Your task to perform on an android device: make emails show in primary in the gmail app Image 0: 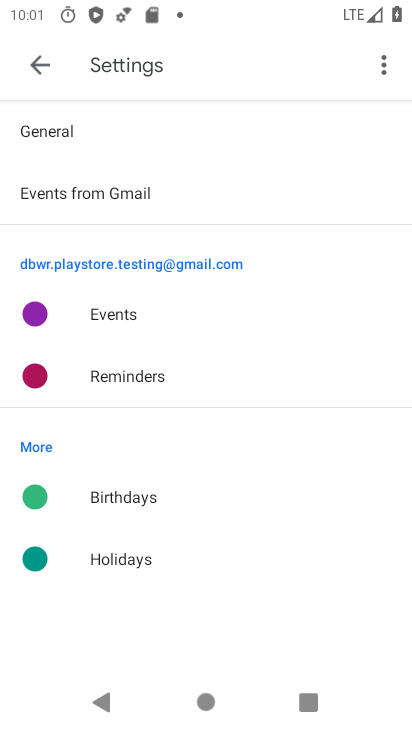
Step 0: press home button
Your task to perform on an android device: make emails show in primary in the gmail app Image 1: 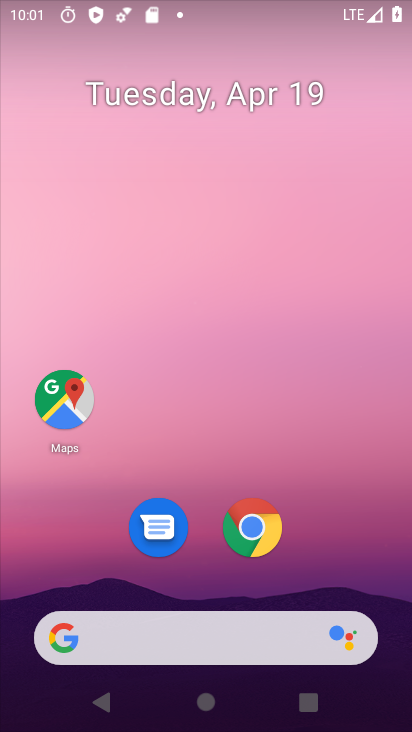
Step 1: drag from (230, 498) to (210, 259)
Your task to perform on an android device: make emails show in primary in the gmail app Image 2: 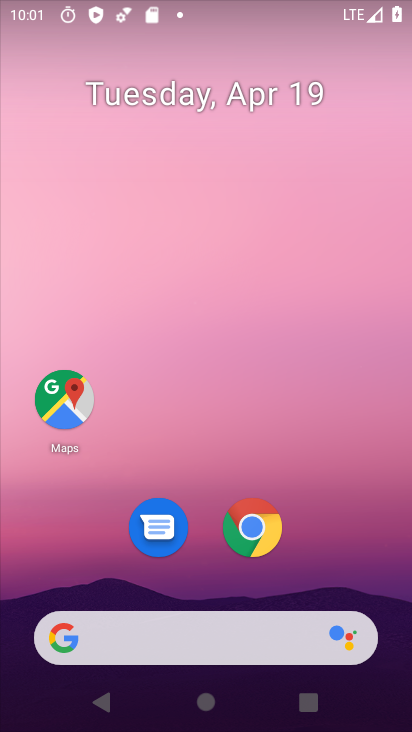
Step 2: drag from (243, 586) to (169, 128)
Your task to perform on an android device: make emails show in primary in the gmail app Image 3: 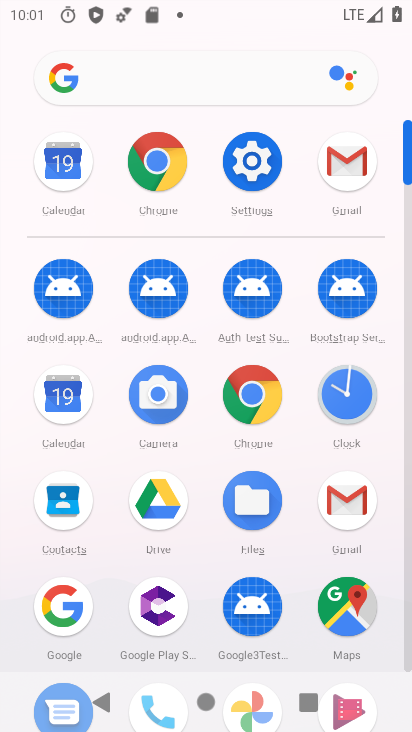
Step 3: click (326, 501)
Your task to perform on an android device: make emails show in primary in the gmail app Image 4: 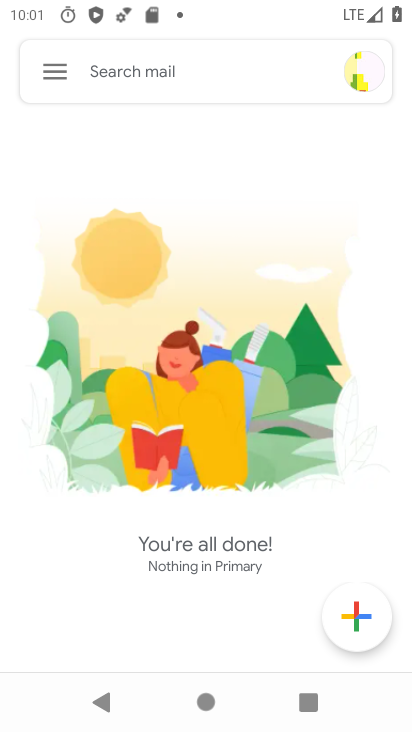
Step 4: click (59, 75)
Your task to perform on an android device: make emails show in primary in the gmail app Image 5: 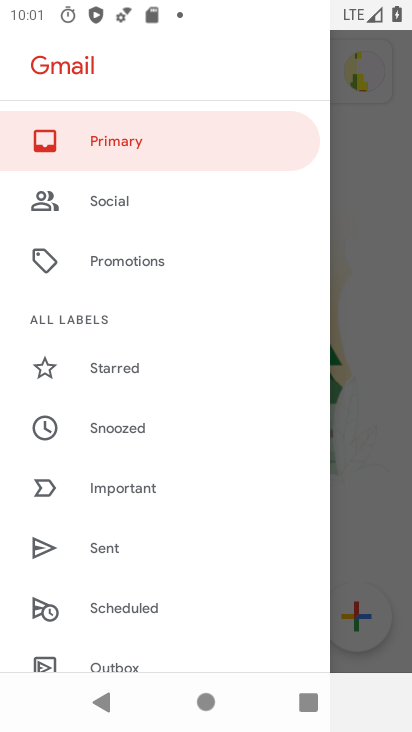
Step 5: drag from (151, 541) to (211, 322)
Your task to perform on an android device: make emails show in primary in the gmail app Image 6: 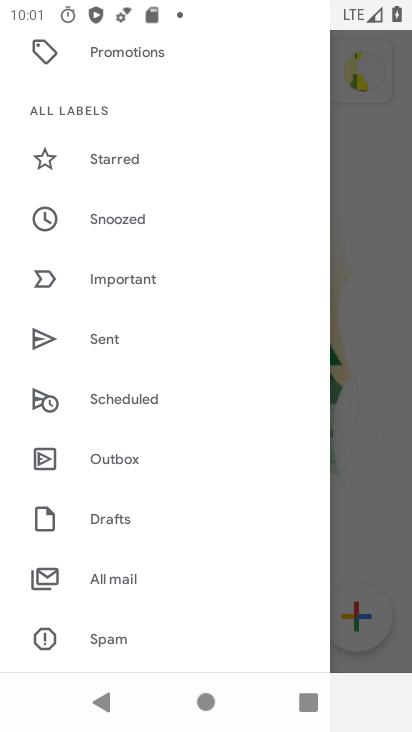
Step 6: drag from (136, 251) to (82, 631)
Your task to perform on an android device: make emails show in primary in the gmail app Image 7: 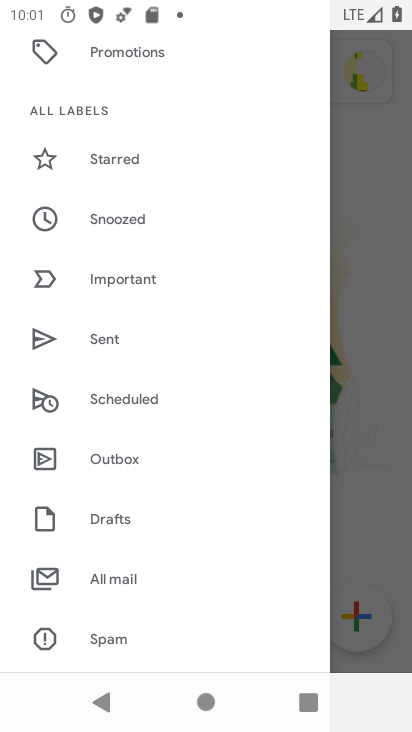
Step 7: drag from (111, 177) to (53, 557)
Your task to perform on an android device: make emails show in primary in the gmail app Image 8: 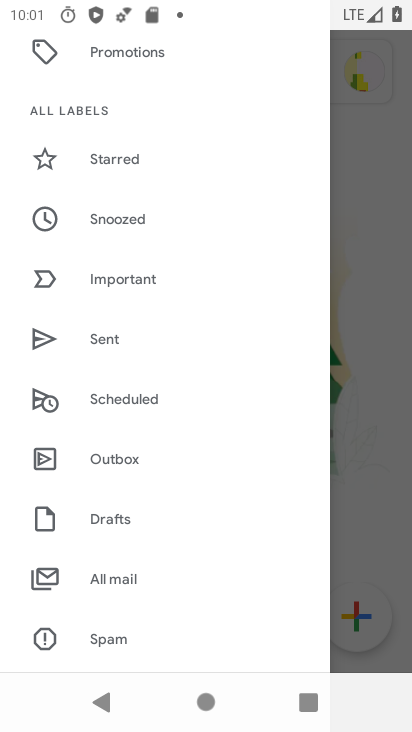
Step 8: drag from (111, 164) to (55, 397)
Your task to perform on an android device: make emails show in primary in the gmail app Image 9: 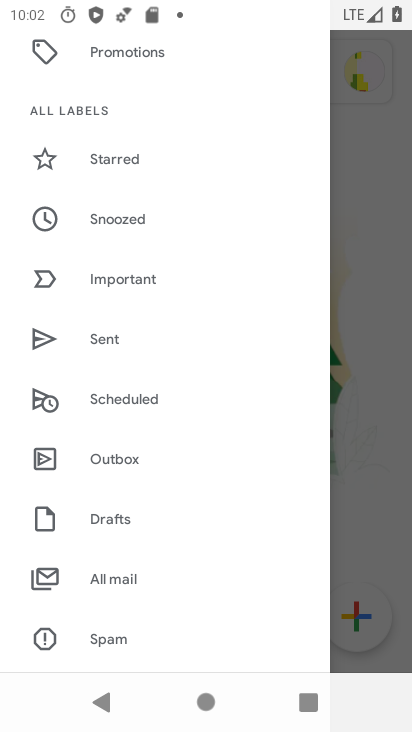
Step 9: drag from (116, 549) to (277, 237)
Your task to perform on an android device: make emails show in primary in the gmail app Image 10: 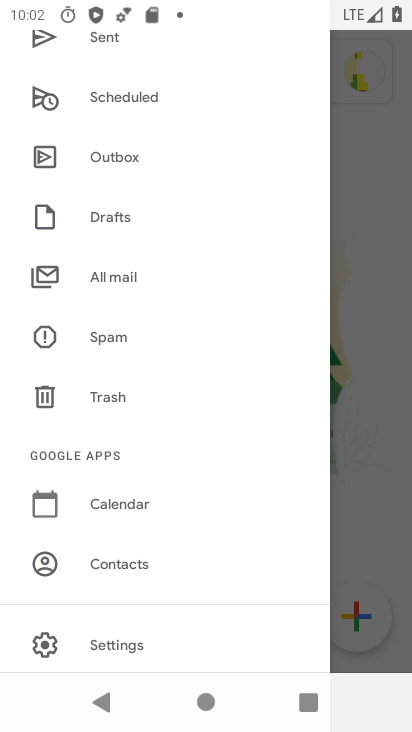
Step 10: click (94, 635)
Your task to perform on an android device: make emails show in primary in the gmail app Image 11: 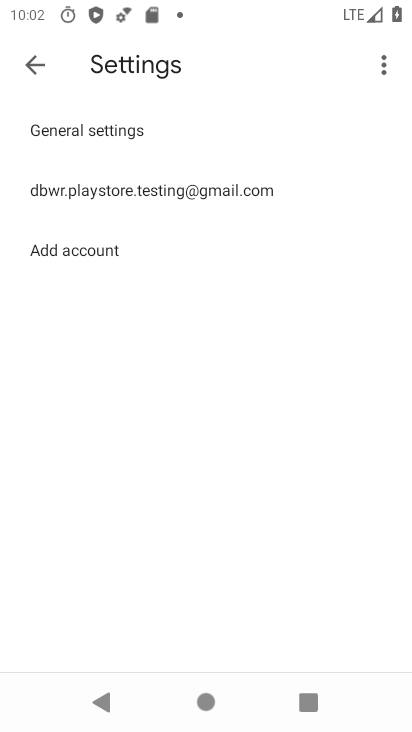
Step 11: click (160, 192)
Your task to perform on an android device: make emails show in primary in the gmail app Image 12: 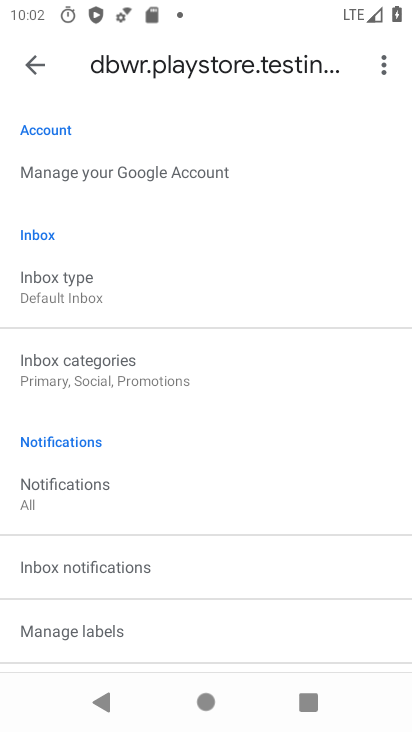
Step 12: drag from (180, 467) to (242, 240)
Your task to perform on an android device: make emails show in primary in the gmail app Image 13: 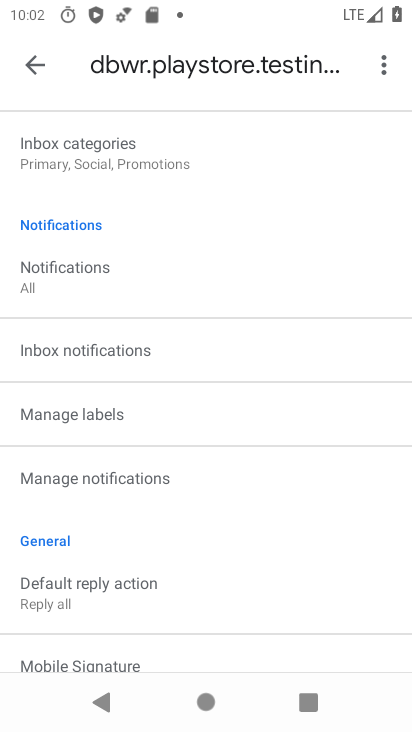
Step 13: click (143, 164)
Your task to perform on an android device: make emails show in primary in the gmail app Image 14: 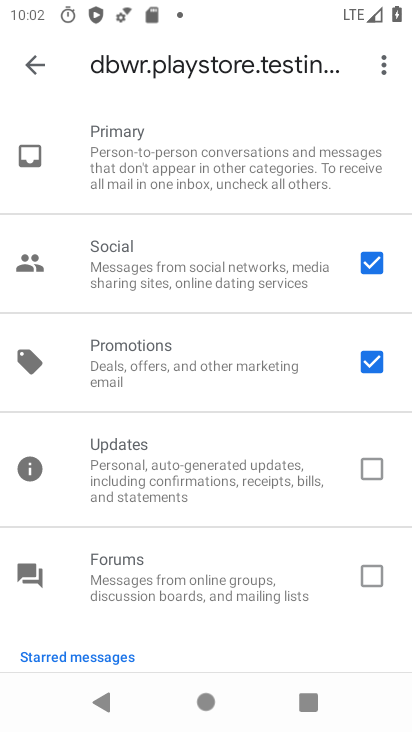
Step 14: click (376, 361)
Your task to perform on an android device: make emails show in primary in the gmail app Image 15: 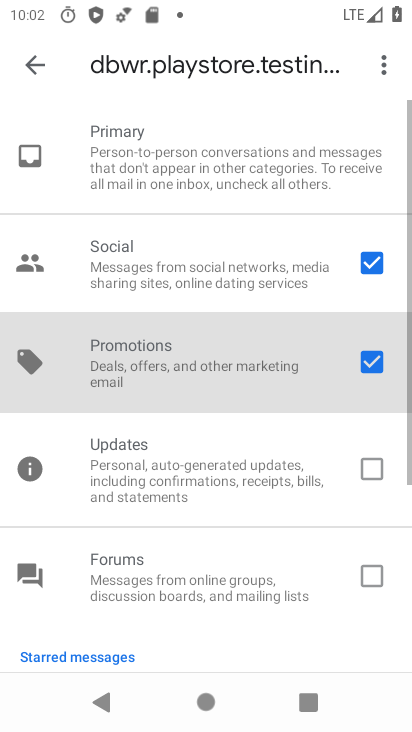
Step 15: click (372, 268)
Your task to perform on an android device: make emails show in primary in the gmail app Image 16: 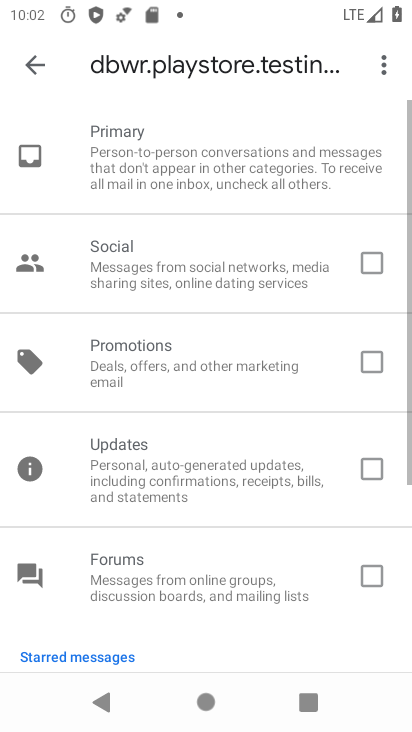
Step 16: task complete